Your task to perform on an android device: set default search engine in the chrome app Image 0: 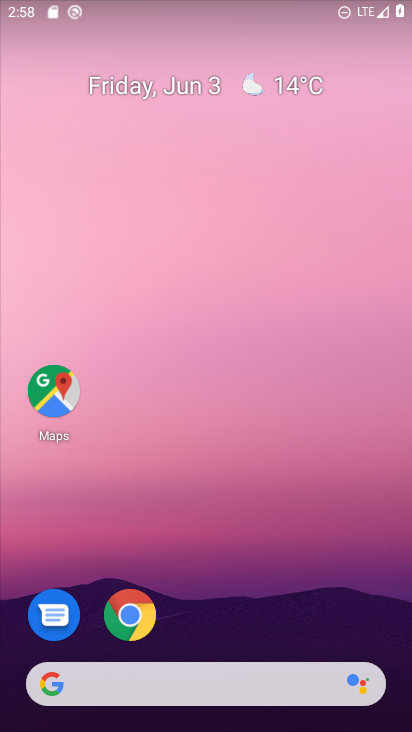
Step 0: click (176, 114)
Your task to perform on an android device: set default search engine in the chrome app Image 1: 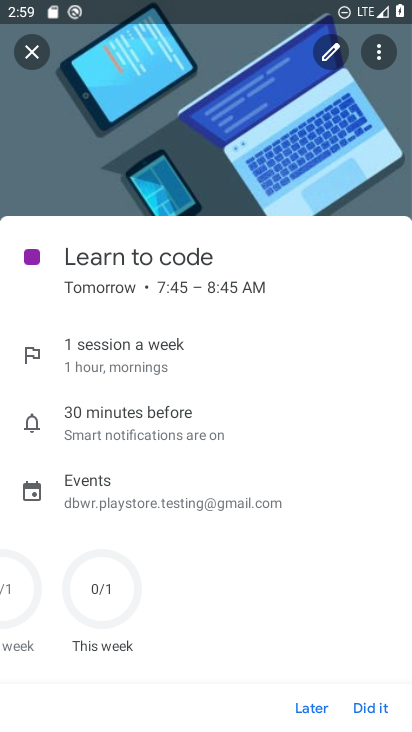
Step 1: press home button
Your task to perform on an android device: set default search engine in the chrome app Image 2: 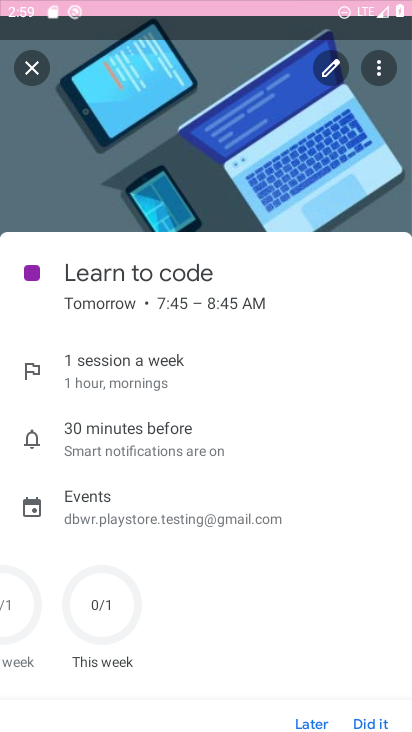
Step 2: drag from (185, 657) to (245, 147)
Your task to perform on an android device: set default search engine in the chrome app Image 3: 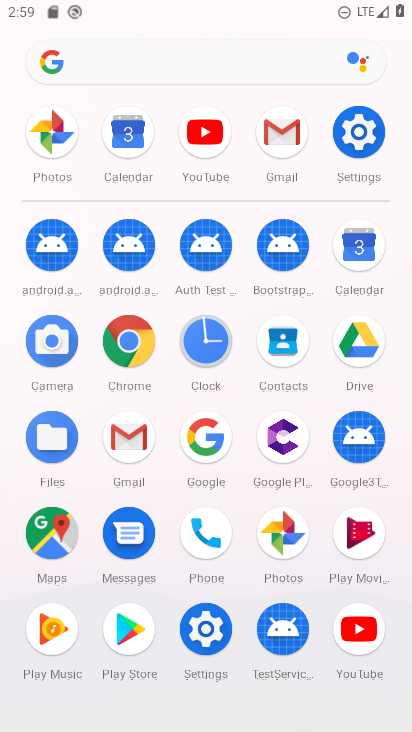
Step 3: click (132, 345)
Your task to perform on an android device: set default search engine in the chrome app Image 4: 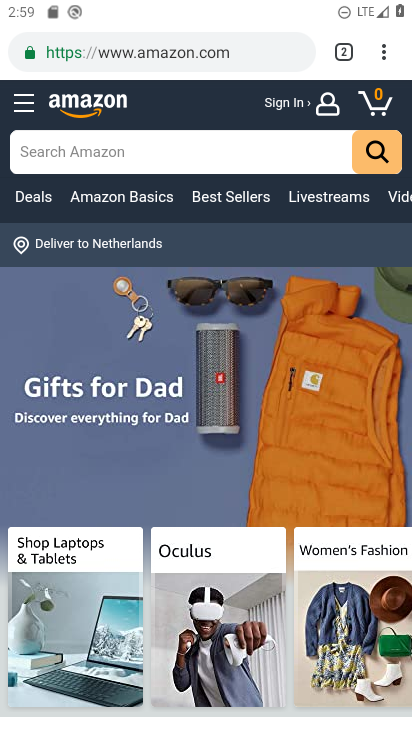
Step 4: drag from (202, 311) to (205, 173)
Your task to perform on an android device: set default search engine in the chrome app Image 5: 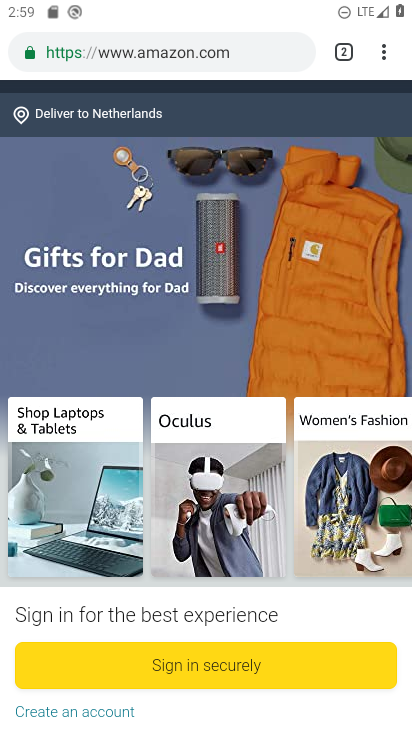
Step 5: drag from (391, 47) to (243, 579)
Your task to perform on an android device: set default search engine in the chrome app Image 6: 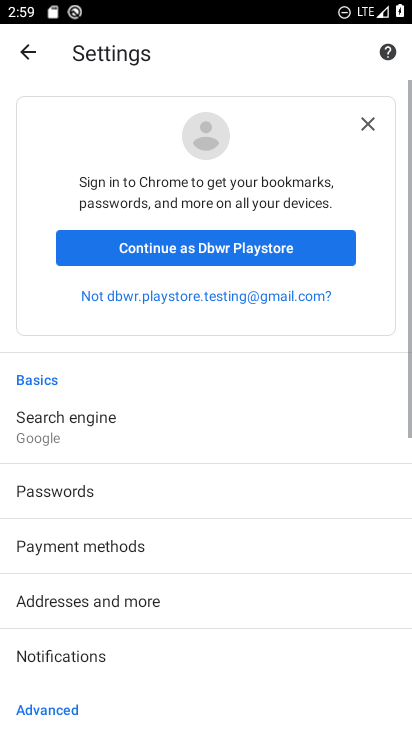
Step 6: drag from (188, 570) to (290, 178)
Your task to perform on an android device: set default search engine in the chrome app Image 7: 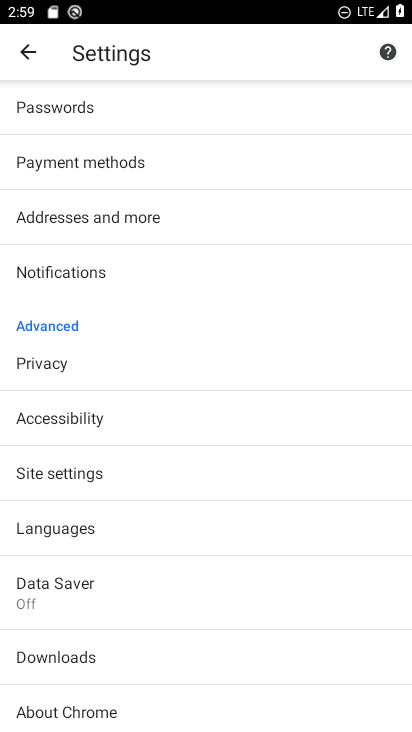
Step 7: drag from (138, 248) to (303, 725)
Your task to perform on an android device: set default search engine in the chrome app Image 8: 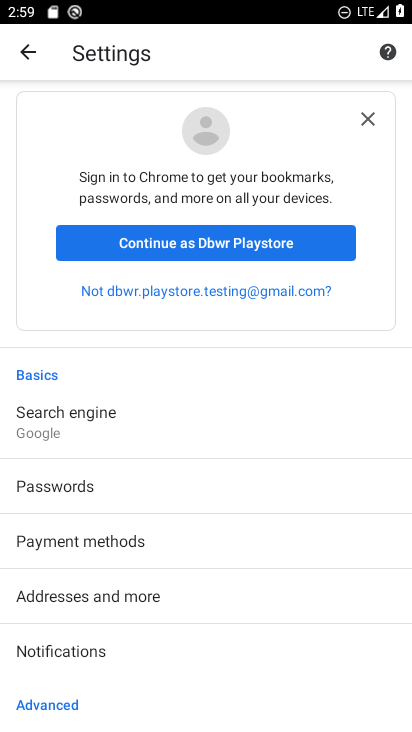
Step 8: click (101, 408)
Your task to perform on an android device: set default search engine in the chrome app Image 9: 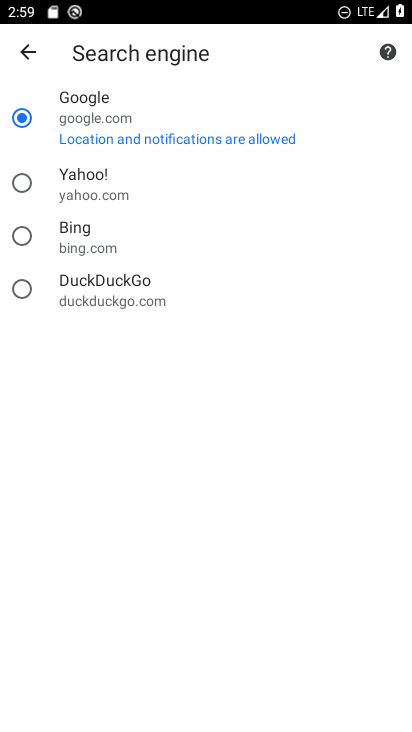
Step 9: task complete